Your task to perform on an android device: Show me popular videos on Youtube Image 0: 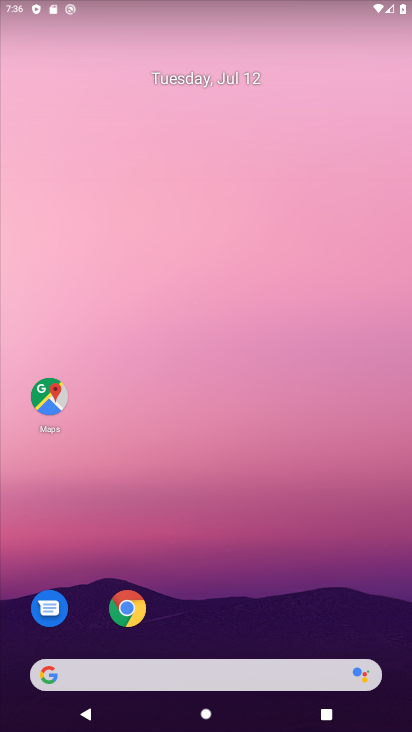
Step 0: drag from (212, 593) to (221, 189)
Your task to perform on an android device: Show me popular videos on Youtube Image 1: 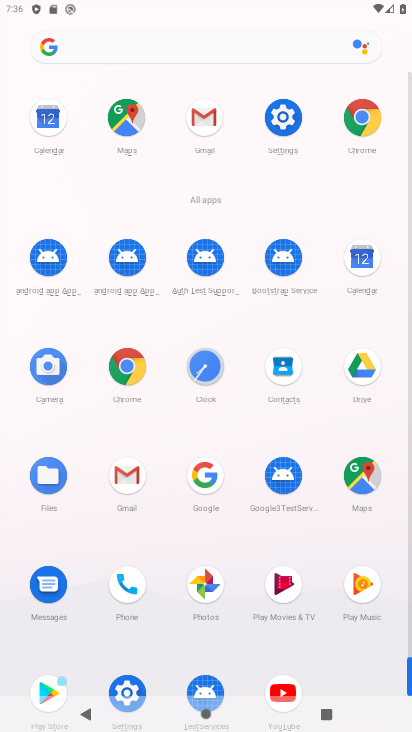
Step 1: drag from (287, 642) to (319, 444)
Your task to perform on an android device: Show me popular videos on Youtube Image 2: 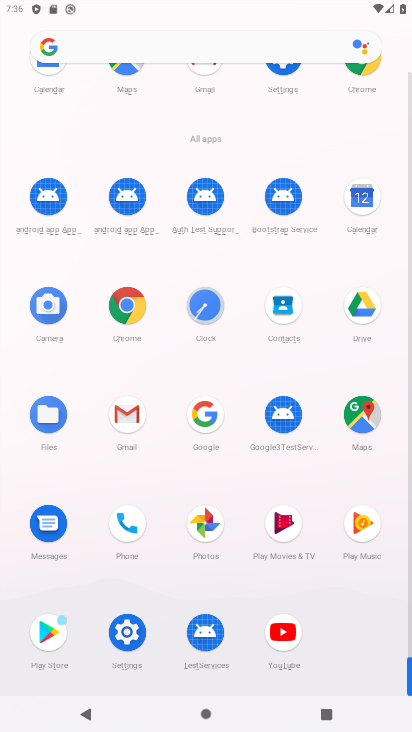
Step 2: click (263, 627)
Your task to perform on an android device: Show me popular videos on Youtube Image 3: 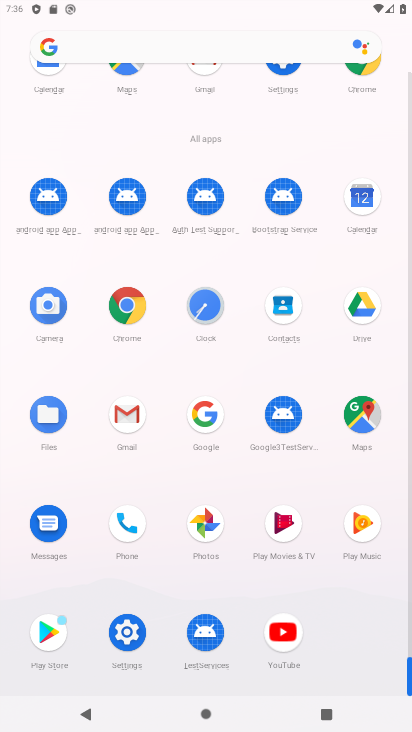
Step 3: click (303, 654)
Your task to perform on an android device: Show me popular videos on Youtube Image 4: 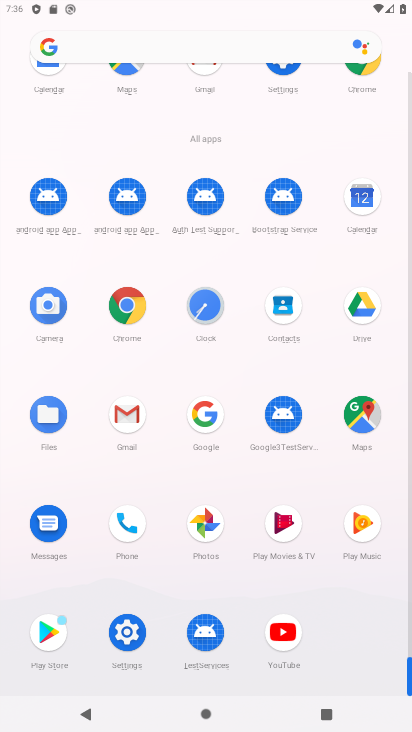
Step 4: click (289, 642)
Your task to perform on an android device: Show me popular videos on Youtube Image 5: 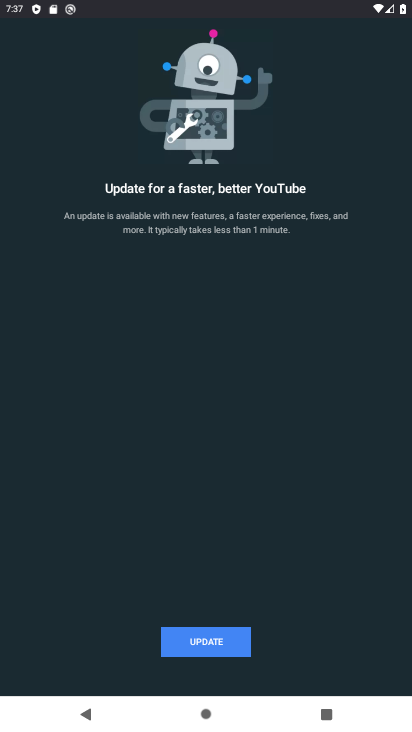
Step 5: task complete